Your task to perform on an android device: turn off priority inbox in the gmail app Image 0: 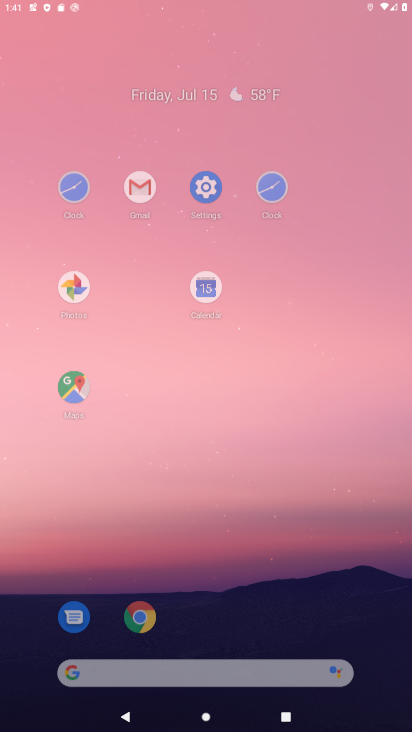
Step 0: press home button
Your task to perform on an android device: turn off priority inbox in the gmail app Image 1: 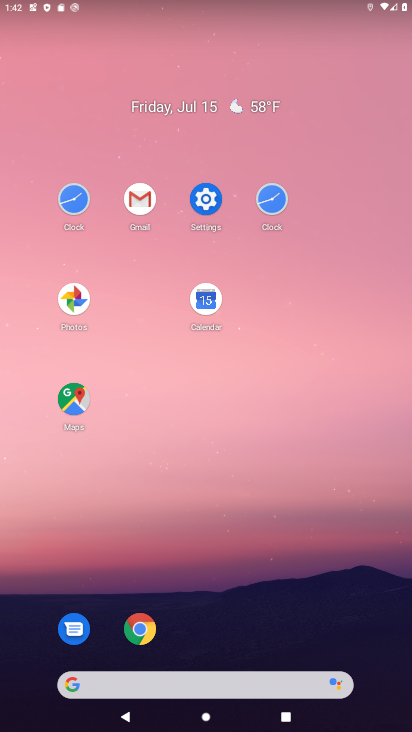
Step 1: click (134, 203)
Your task to perform on an android device: turn off priority inbox in the gmail app Image 2: 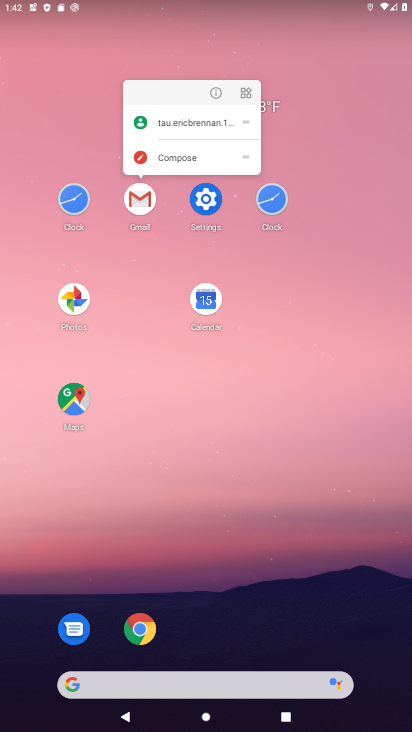
Step 2: click (134, 203)
Your task to perform on an android device: turn off priority inbox in the gmail app Image 3: 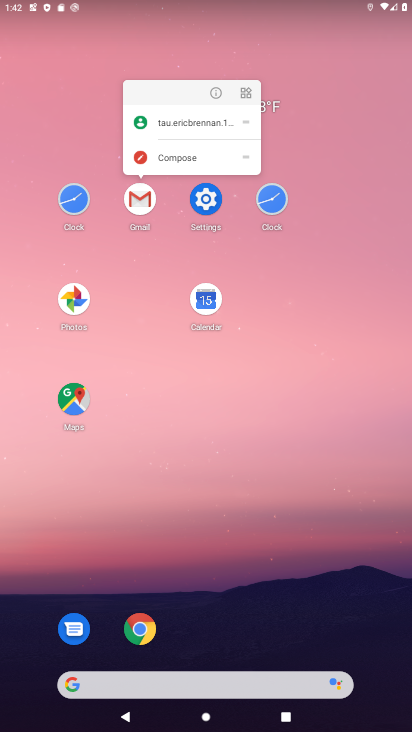
Step 3: click (134, 203)
Your task to perform on an android device: turn off priority inbox in the gmail app Image 4: 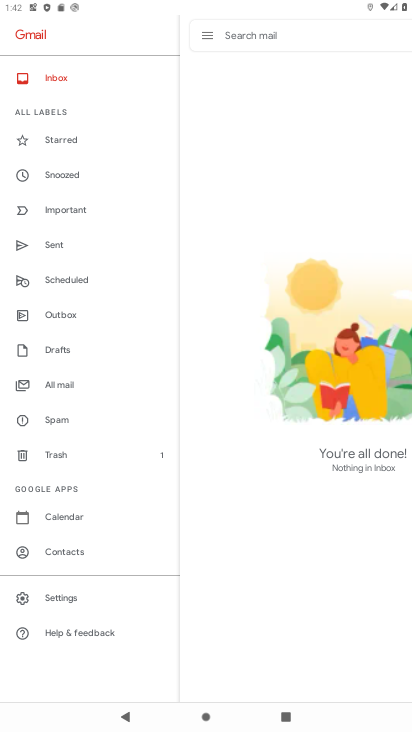
Step 4: click (78, 595)
Your task to perform on an android device: turn off priority inbox in the gmail app Image 5: 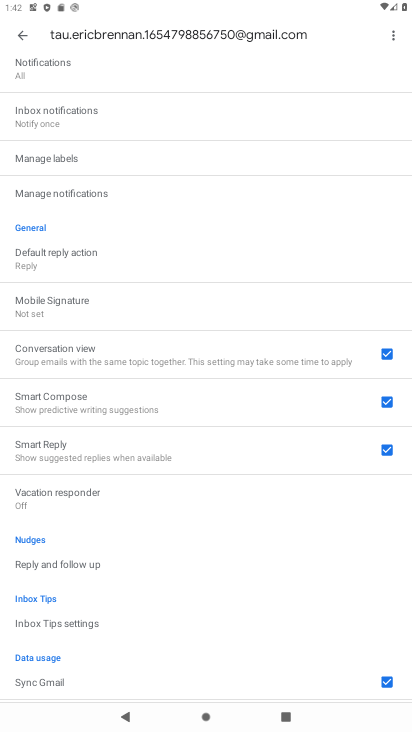
Step 5: task complete